Your task to perform on an android device: see creations saved in the google photos Image 0: 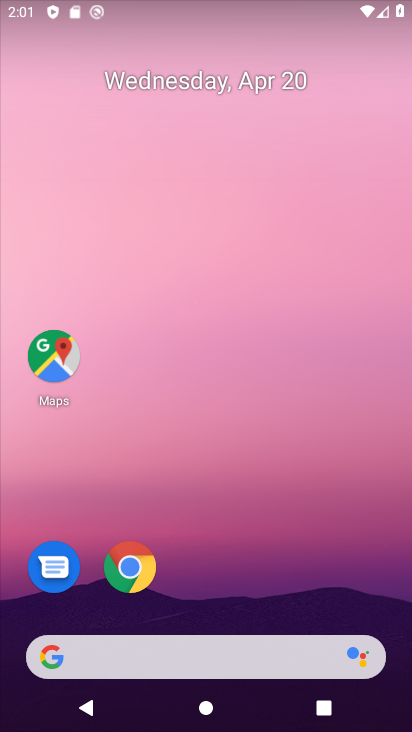
Step 0: drag from (227, 647) to (192, 88)
Your task to perform on an android device: see creations saved in the google photos Image 1: 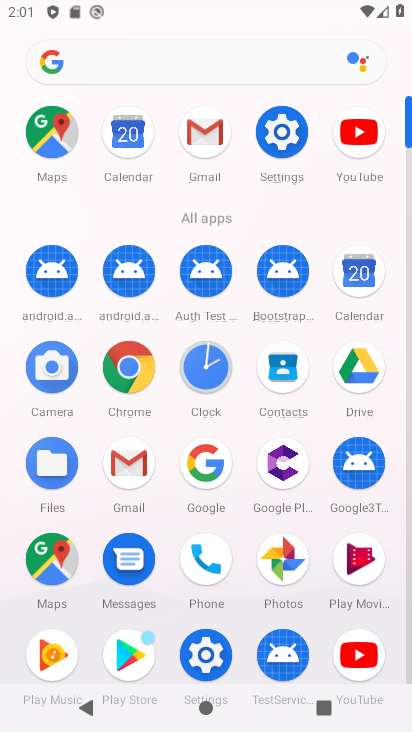
Step 1: click (275, 539)
Your task to perform on an android device: see creations saved in the google photos Image 2: 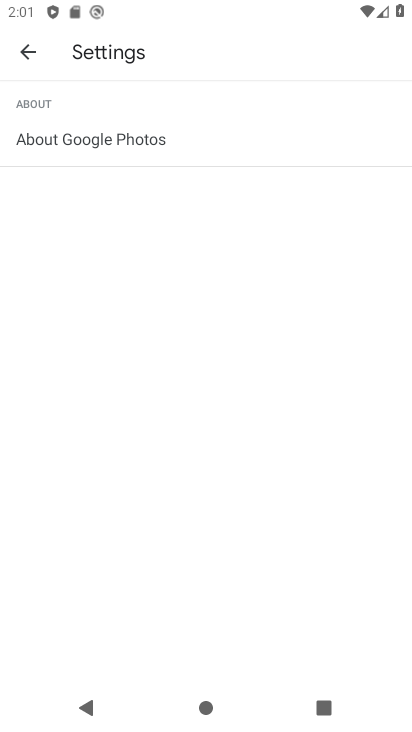
Step 2: press back button
Your task to perform on an android device: see creations saved in the google photos Image 3: 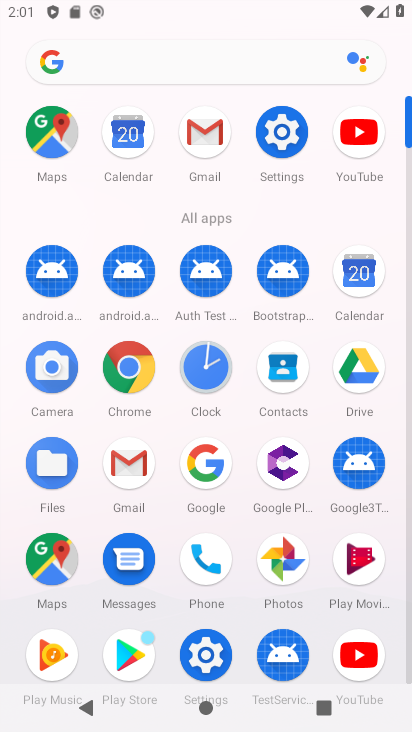
Step 3: click (268, 567)
Your task to perform on an android device: see creations saved in the google photos Image 4: 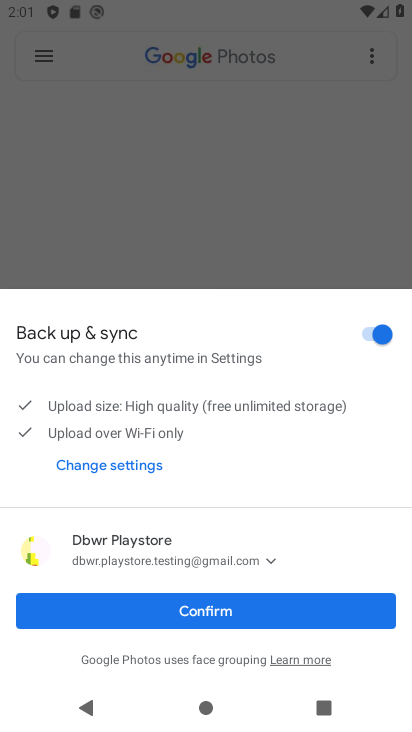
Step 4: click (244, 618)
Your task to perform on an android device: see creations saved in the google photos Image 5: 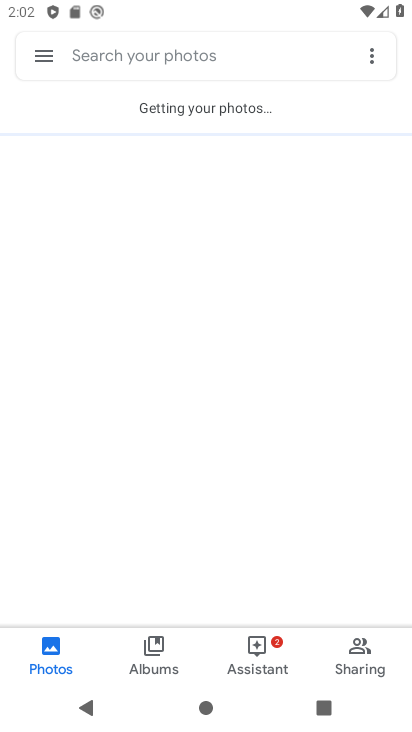
Step 5: click (262, 654)
Your task to perform on an android device: see creations saved in the google photos Image 6: 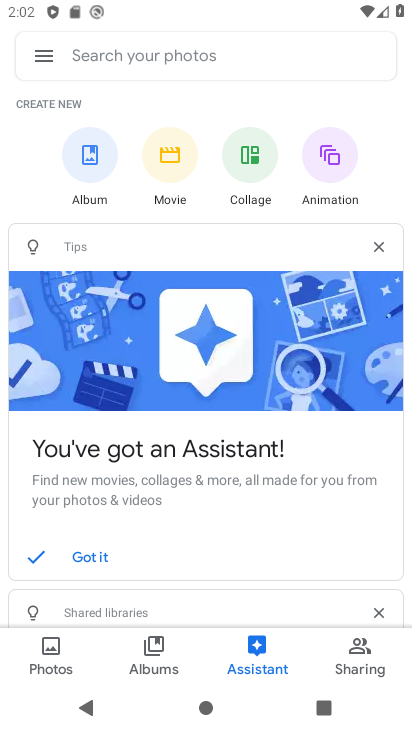
Step 6: task complete